Your task to perform on an android device: open chrome and create a bookmark for the current page Image 0: 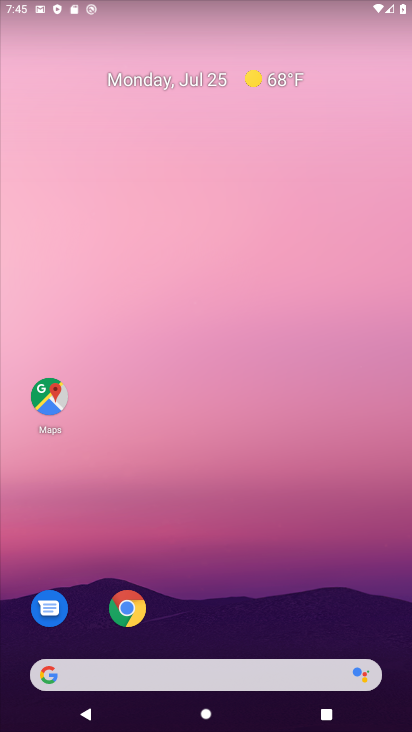
Step 0: click (131, 609)
Your task to perform on an android device: open chrome and create a bookmark for the current page Image 1: 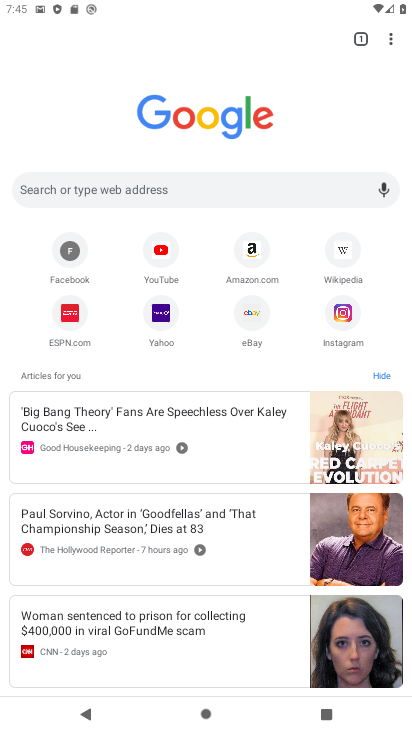
Step 1: click (391, 41)
Your task to perform on an android device: open chrome and create a bookmark for the current page Image 2: 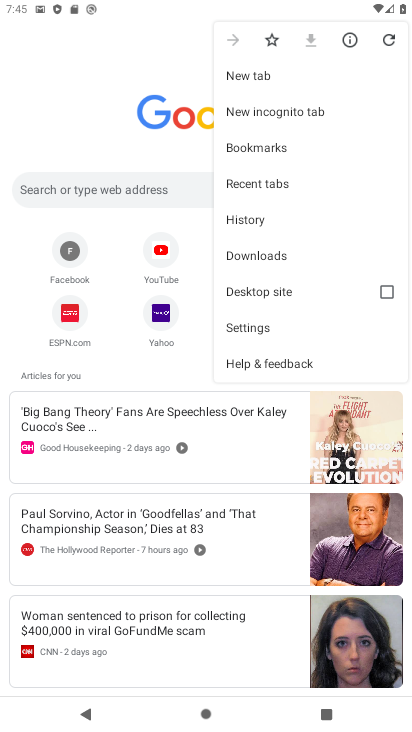
Step 2: click (274, 36)
Your task to perform on an android device: open chrome and create a bookmark for the current page Image 3: 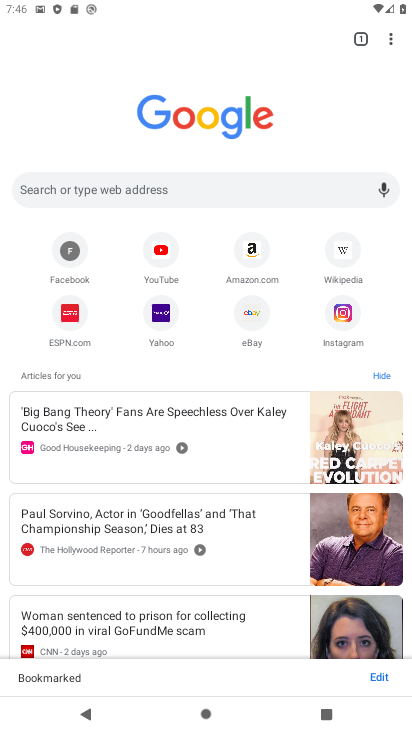
Step 3: task complete